Your task to perform on an android device: turn notification dots off Image 0: 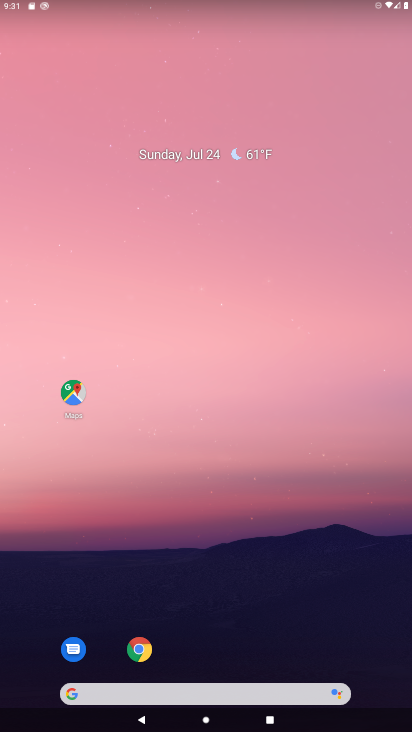
Step 0: drag from (317, 626) to (271, 128)
Your task to perform on an android device: turn notification dots off Image 1: 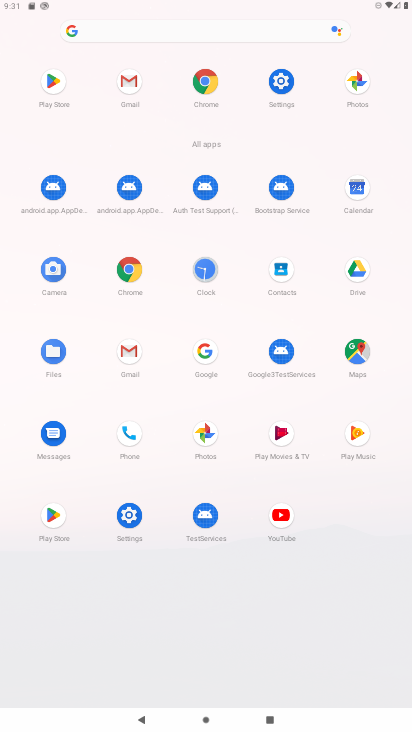
Step 1: click (289, 77)
Your task to perform on an android device: turn notification dots off Image 2: 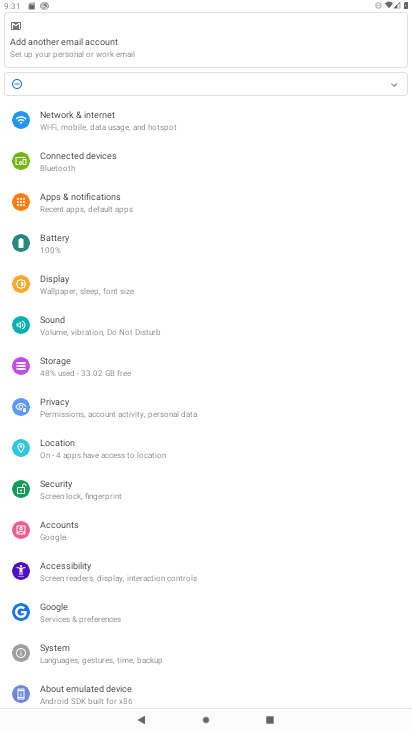
Step 2: click (105, 200)
Your task to perform on an android device: turn notification dots off Image 3: 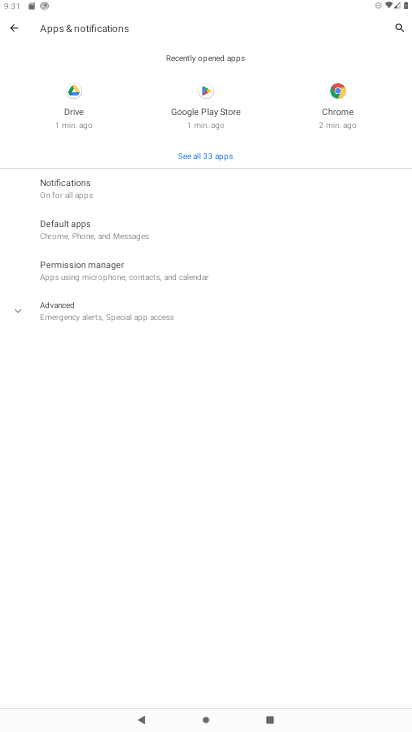
Step 3: click (102, 195)
Your task to perform on an android device: turn notification dots off Image 4: 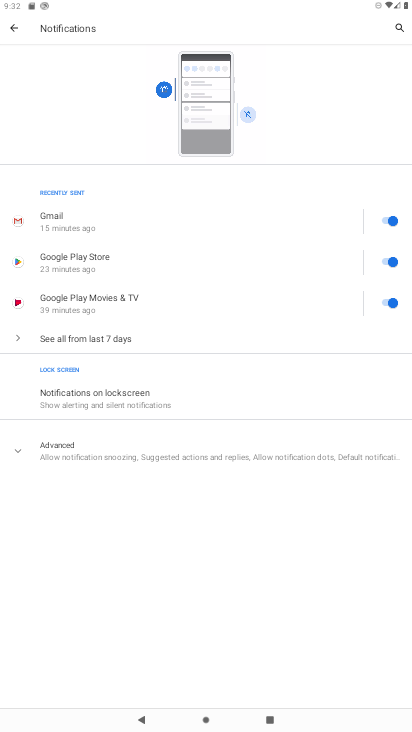
Step 4: click (89, 454)
Your task to perform on an android device: turn notification dots off Image 5: 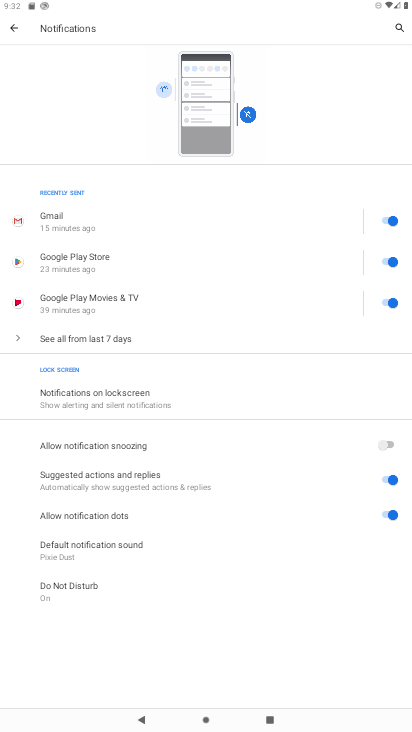
Step 5: click (379, 514)
Your task to perform on an android device: turn notification dots off Image 6: 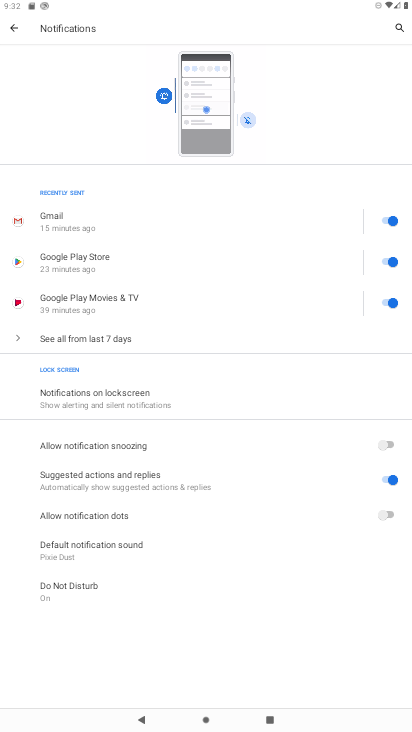
Step 6: task complete